Your task to perform on an android device: uninstall "Microsoft Authenticator" Image 0: 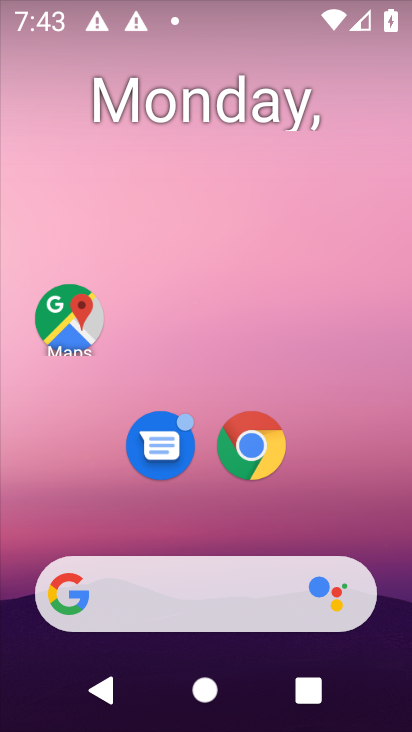
Step 0: drag from (393, 616) to (204, 1)
Your task to perform on an android device: uninstall "Microsoft Authenticator" Image 1: 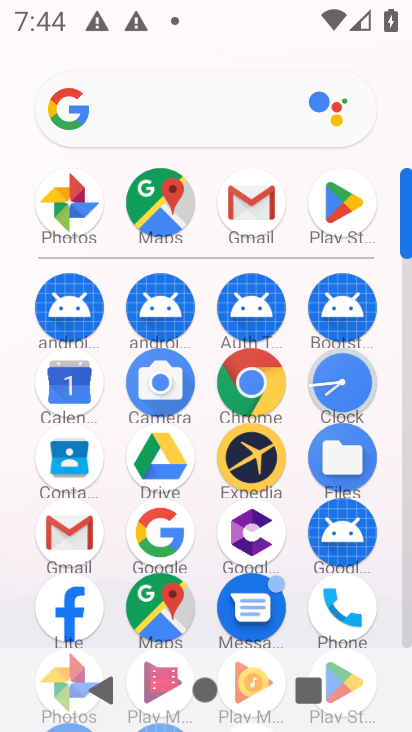
Step 1: click (354, 219)
Your task to perform on an android device: uninstall "Microsoft Authenticator" Image 2: 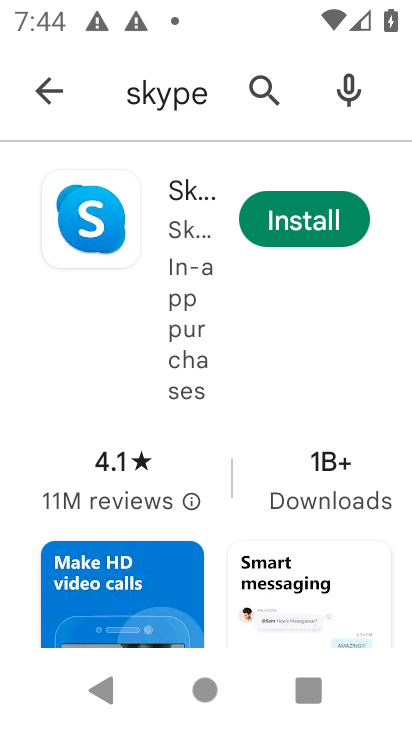
Step 2: press back button
Your task to perform on an android device: uninstall "Microsoft Authenticator" Image 3: 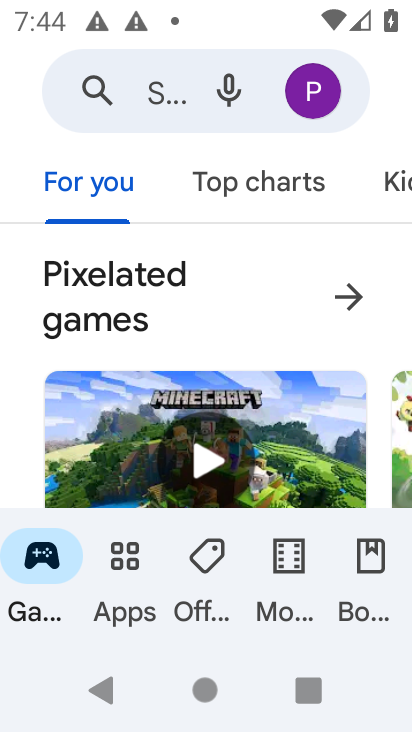
Step 3: click (170, 90)
Your task to perform on an android device: uninstall "Microsoft Authenticator" Image 4: 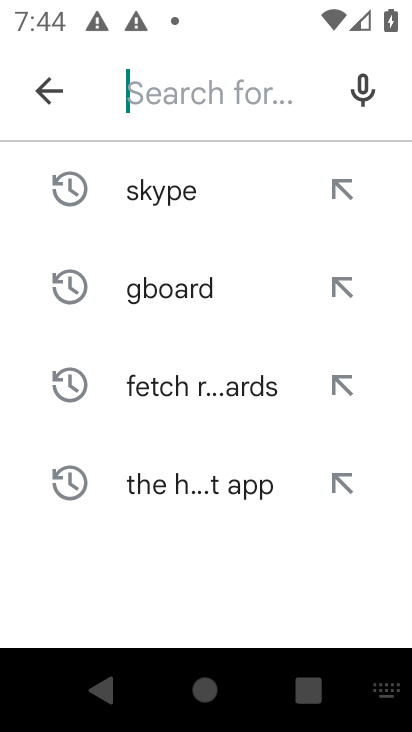
Step 4: type "Microsoft Authenticator"
Your task to perform on an android device: uninstall "Microsoft Authenticator" Image 5: 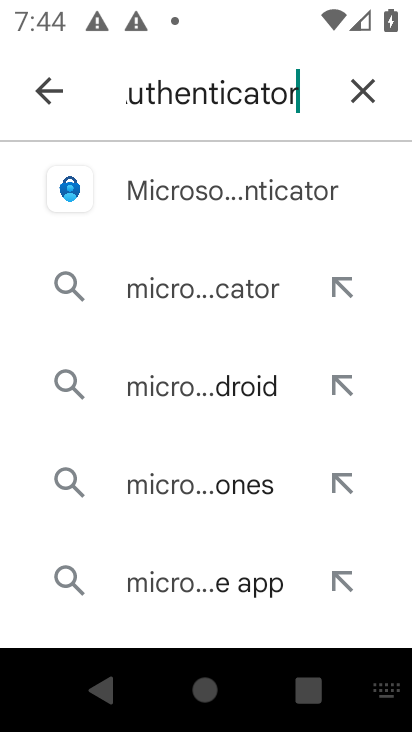
Step 5: click (235, 200)
Your task to perform on an android device: uninstall "Microsoft Authenticator" Image 6: 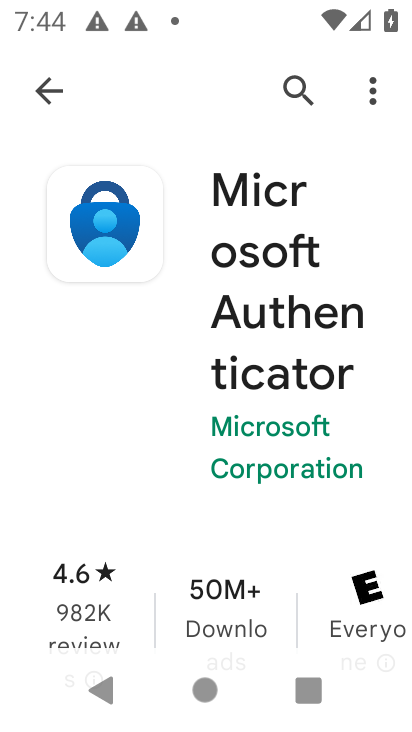
Step 6: task complete